Your task to perform on an android device: find photos in the google photos app Image 0: 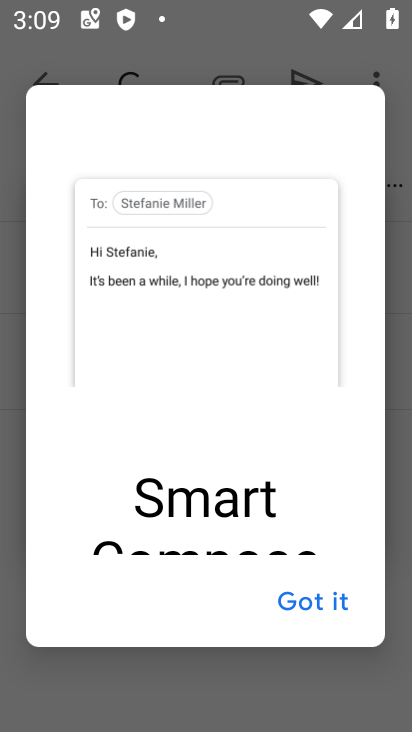
Step 0: press home button
Your task to perform on an android device: find photos in the google photos app Image 1: 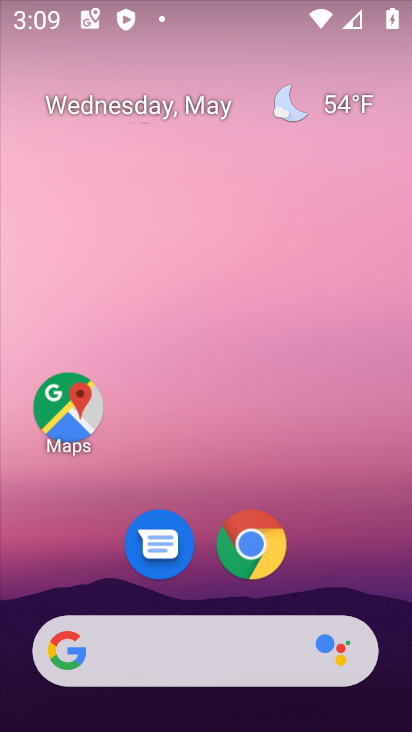
Step 1: drag from (323, 578) to (307, 151)
Your task to perform on an android device: find photos in the google photos app Image 2: 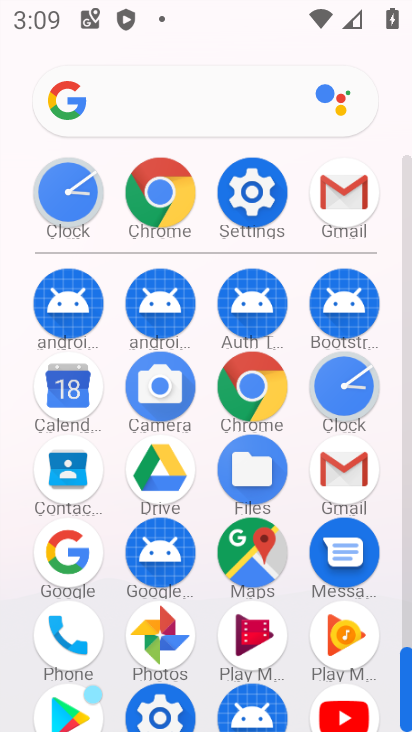
Step 2: click (169, 642)
Your task to perform on an android device: find photos in the google photos app Image 3: 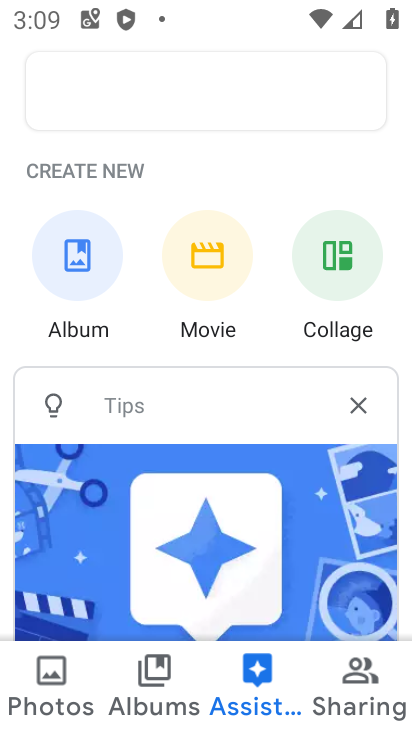
Step 3: task complete